Your task to perform on an android device: Go to Yahoo.com Image 0: 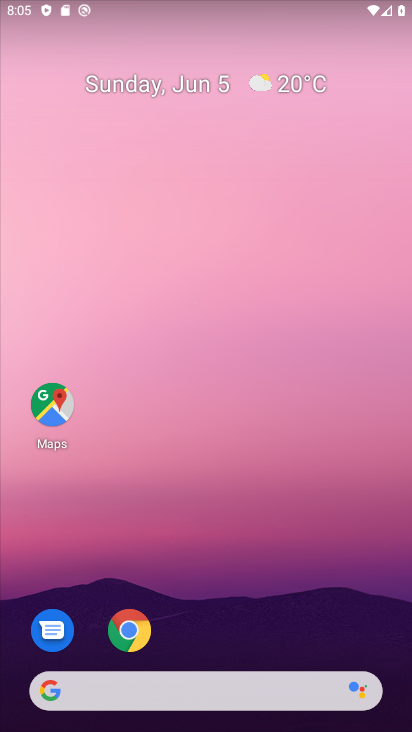
Step 0: click (130, 629)
Your task to perform on an android device: Go to Yahoo.com Image 1: 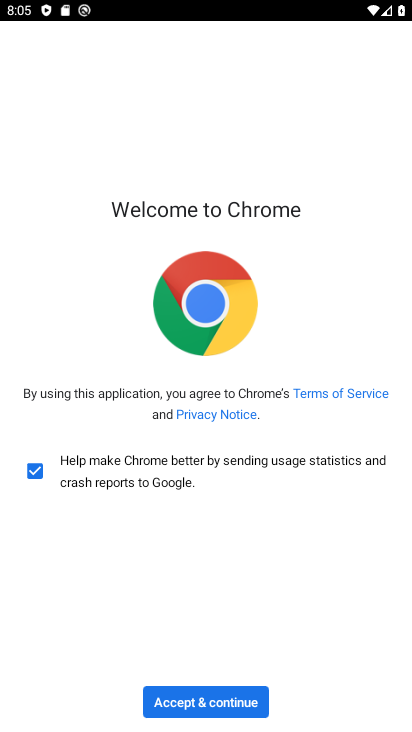
Step 1: click (189, 707)
Your task to perform on an android device: Go to Yahoo.com Image 2: 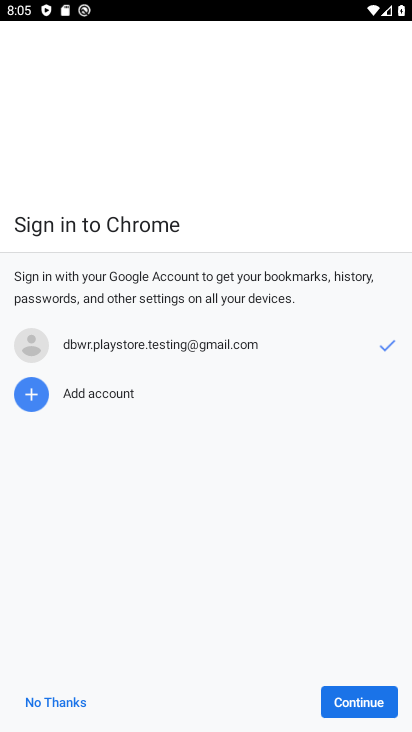
Step 2: click (358, 704)
Your task to perform on an android device: Go to Yahoo.com Image 3: 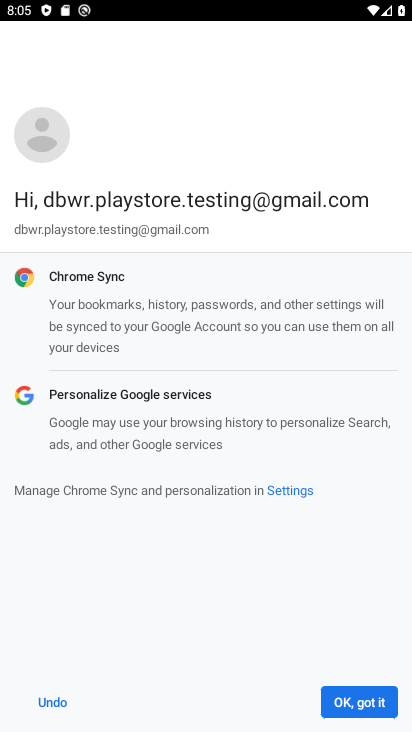
Step 3: click (358, 704)
Your task to perform on an android device: Go to Yahoo.com Image 4: 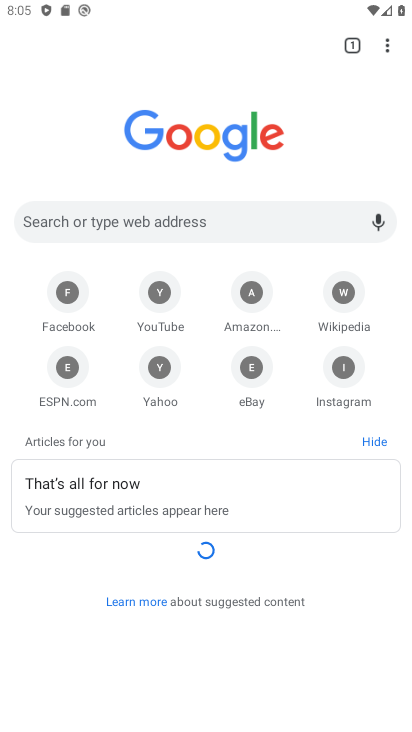
Step 4: click (182, 220)
Your task to perform on an android device: Go to Yahoo.com Image 5: 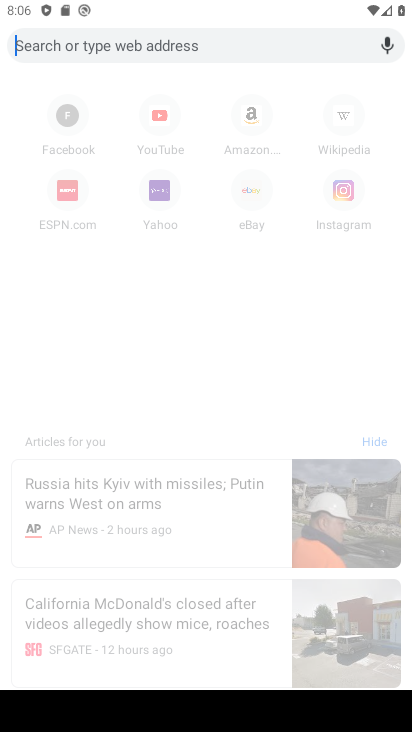
Step 5: type "Yahoo.com"
Your task to perform on an android device: Go to Yahoo.com Image 6: 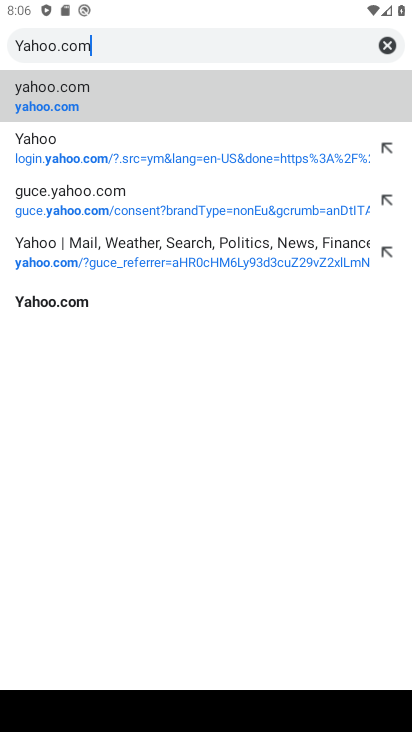
Step 6: click (72, 310)
Your task to perform on an android device: Go to Yahoo.com Image 7: 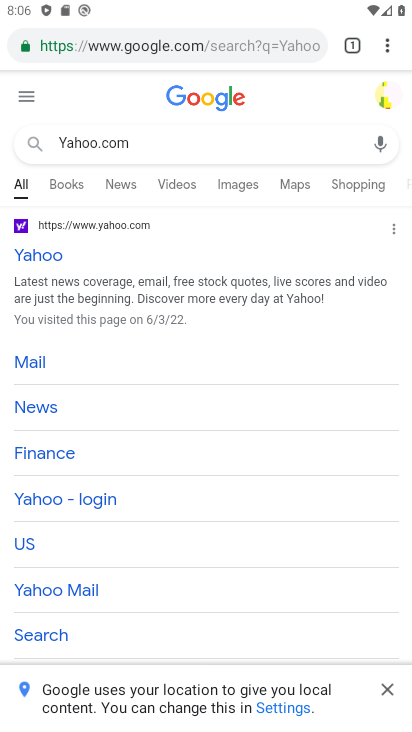
Step 7: click (58, 265)
Your task to perform on an android device: Go to Yahoo.com Image 8: 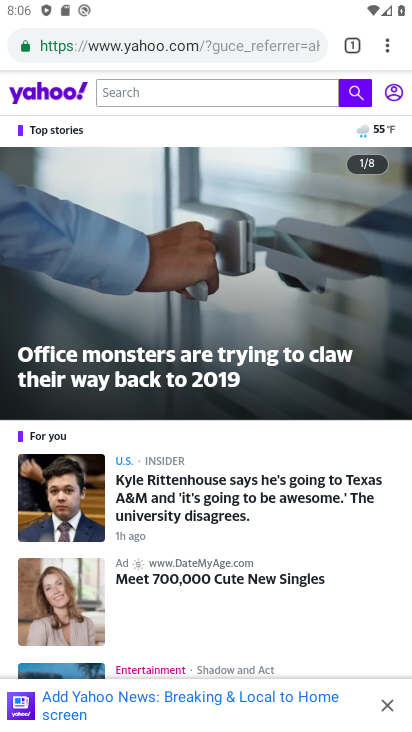
Step 8: task complete